Your task to perform on an android device: Open notification settings Image 0: 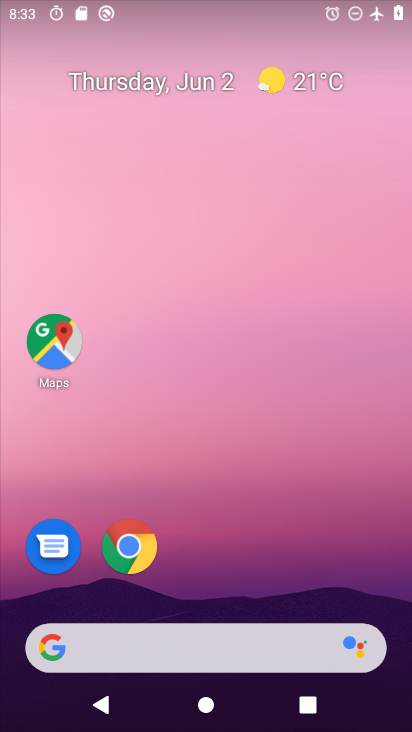
Step 0: drag from (259, 533) to (323, 110)
Your task to perform on an android device: Open notification settings Image 1: 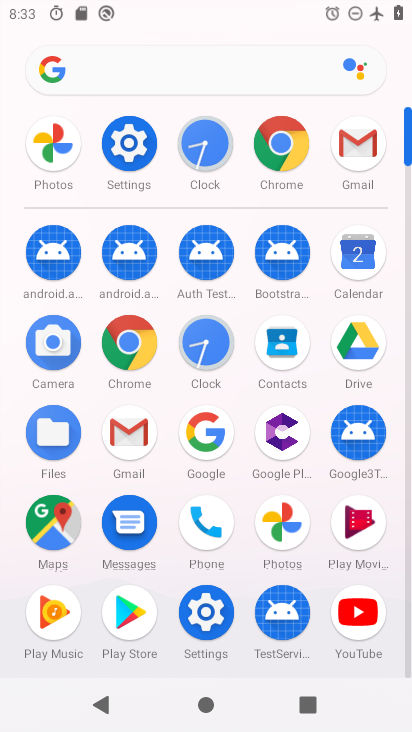
Step 1: click (224, 620)
Your task to perform on an android device: Open notification settings Image 2: 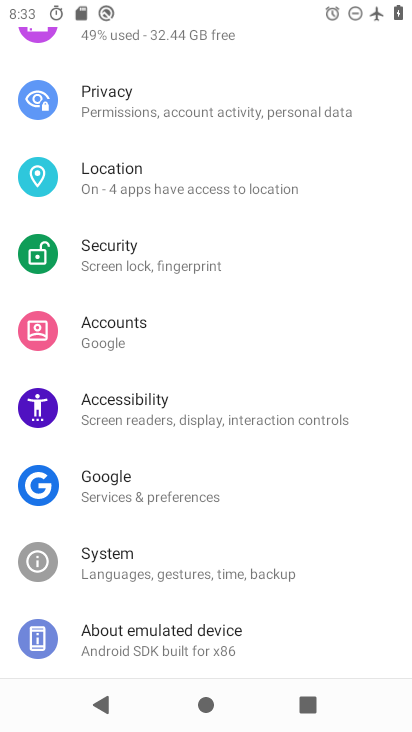
Step 2: drag from (177, 156) to (102, 572)
Your task to perform on an android device: Open notification settings Image 3: 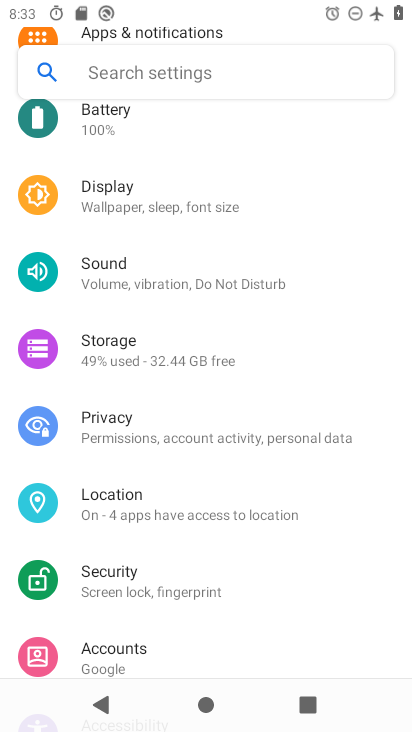
Step 3: drag from (186, 240) to (194, 555)
Your task to perform on an android device: Open notification settings Image 4: 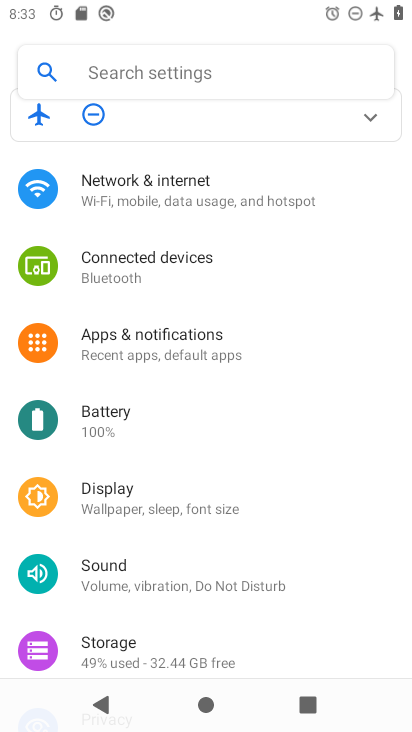
Step 4: click (210, 327)
Your task to perform on an android device: Open notification settings Image 5: 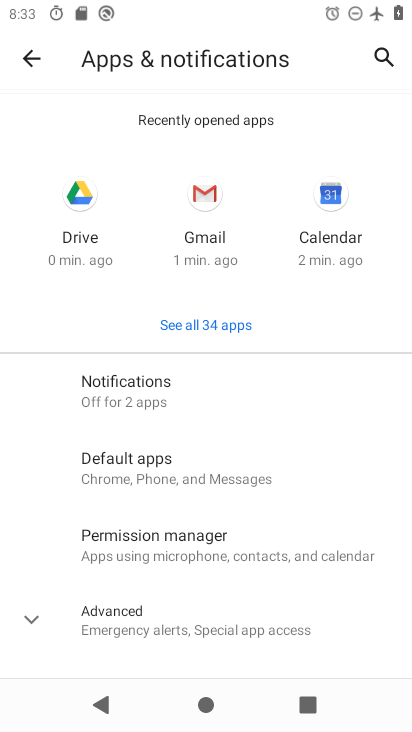
Step 5: click (168, 372)
Your task to perform on an android device: Open notification settings Image 6: 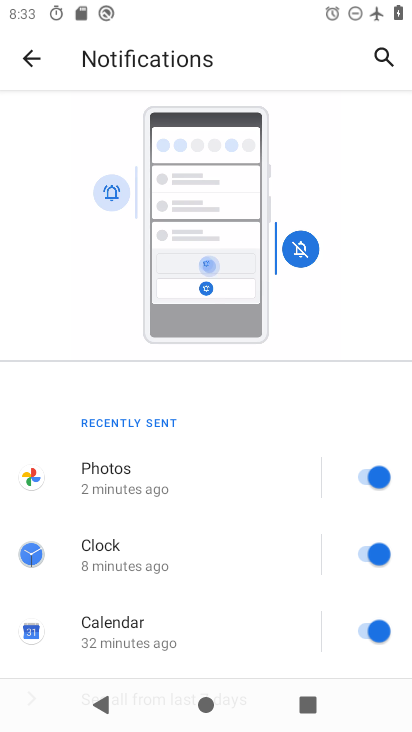
Step 6: task complete